Your task to perform on an android device: Go to wifi settings Image 0: 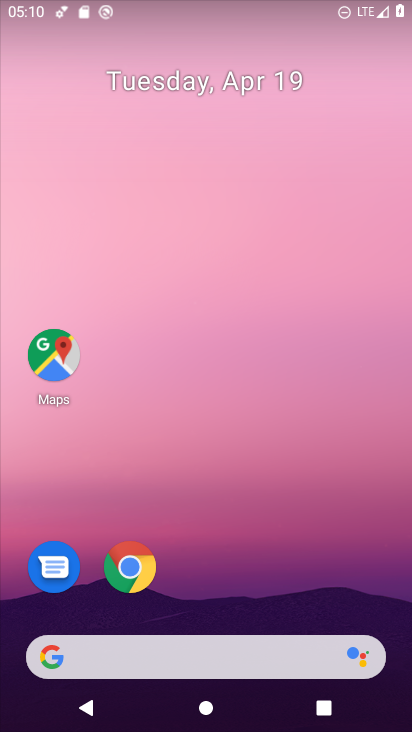
Step 0: drag from (271, 564) to (263, 131)
Your task to perform on an android device: Go to wifi settings Image 1: 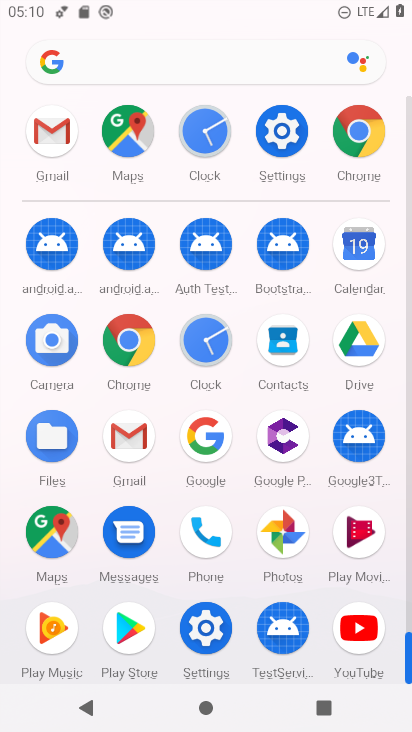
Step 1: click (222, 632)
Your task to perform on an android device: Go to wifi settings Image 2: 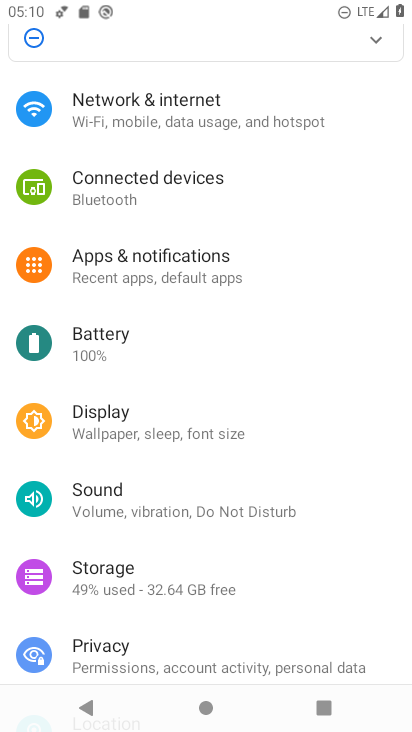
Step 2: drag from (286, 347) to (260, 708)
Your task to perform on an android device: Go to wifi settings Image 3: 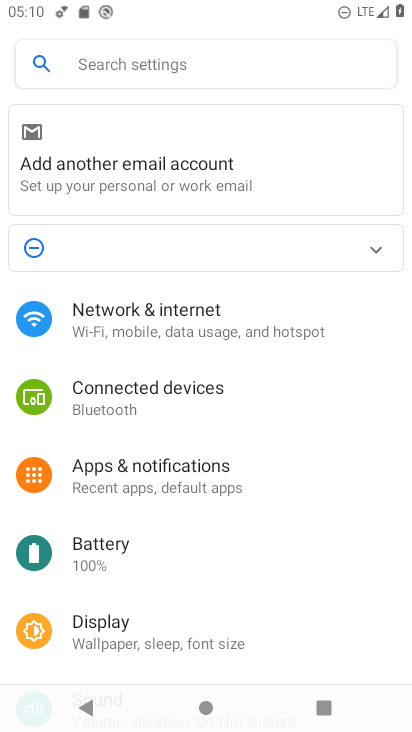
Step 3: click (221, 335)
Your task to perform on an android device: Go to wifi settings Image 4: 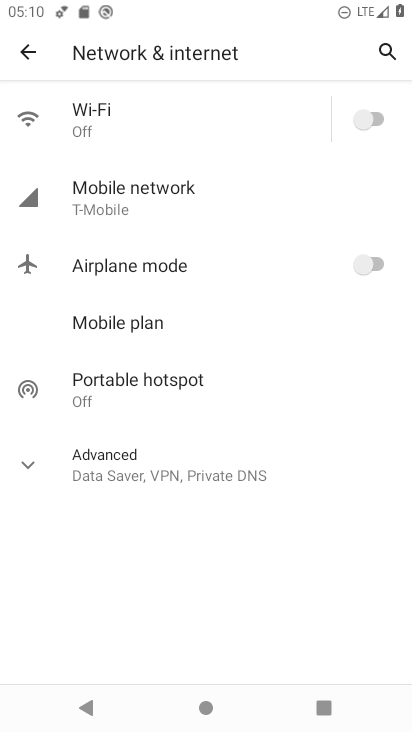
Step 4: click (245, 132)
Your task to perform on an android device: Go to wifi settings Image 5: 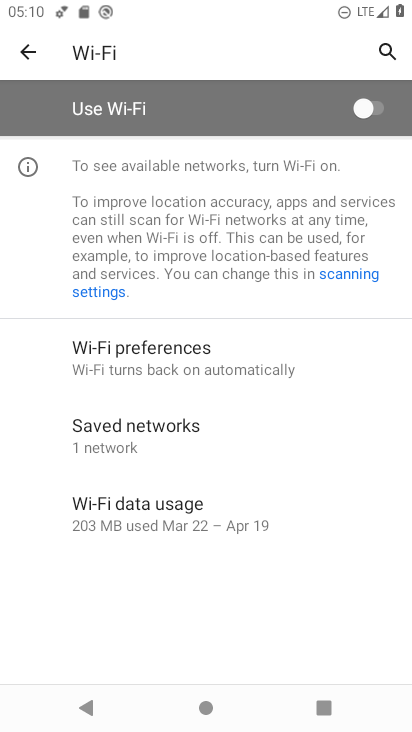
Step 5: task complete